Your task to perform on an android device: Search for vegetarian restaurants on Maps Image 0: 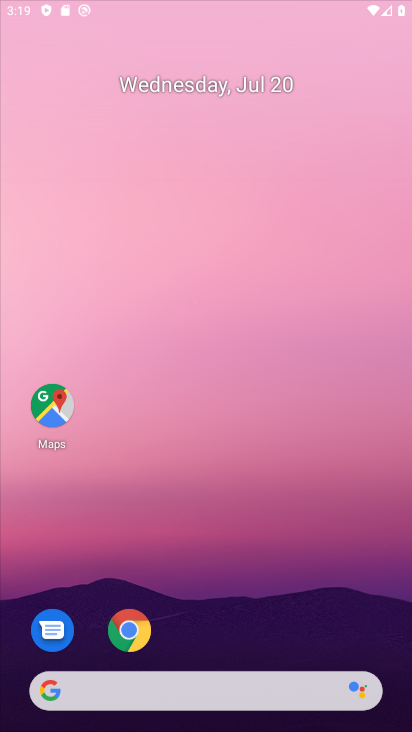
Step 0: press home button
Your task to perform on an android device: Search for vegetarian restaurants on Maps Image 1: 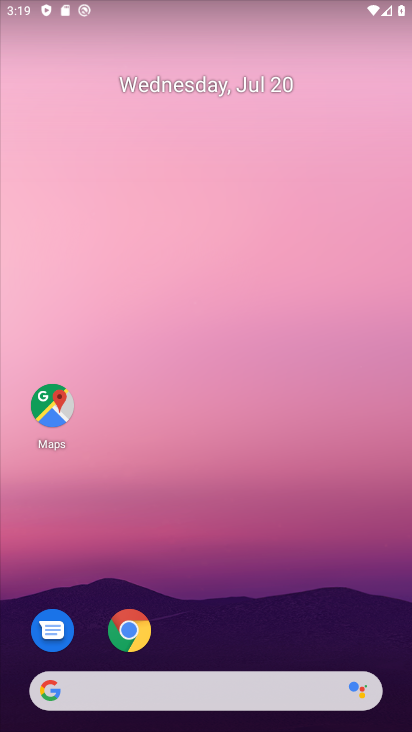
Step 1: drag from (251, 641) to (84, 2)
Your task to perform on an android device: Search for vegetarian restaurants on Maps Image 2: 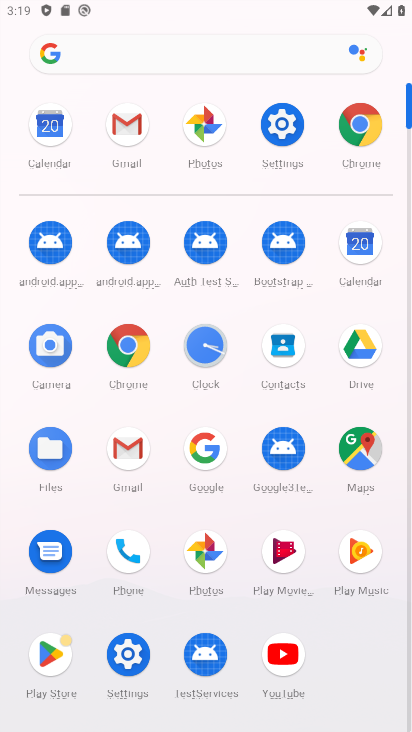
Step 2: click (370, 452)
Your task to perform on an android device: Search for vegetarian restaurants on Maps Image 3: 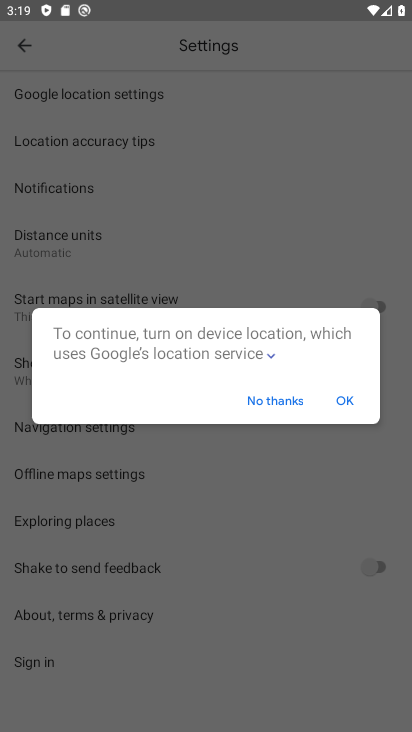
Step 3: click (27, 54)
Your task to perform on an android device: Search for vegetarian restaurants on Maps Image 4: 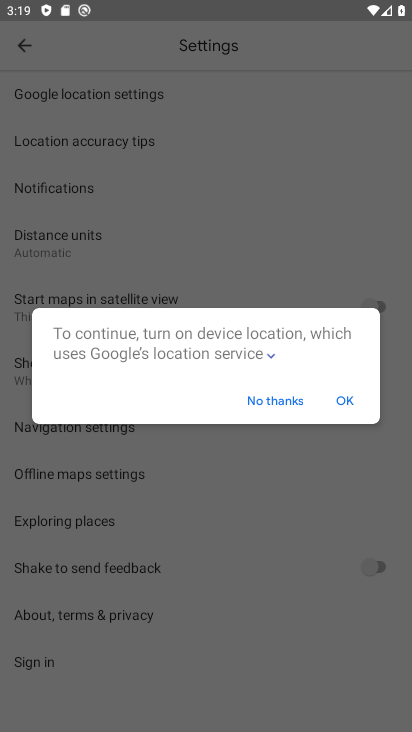
Step 4: click (349, 402)
Your task to perform on an android device: Search for vegetarian restaurants on Maps Image 5: 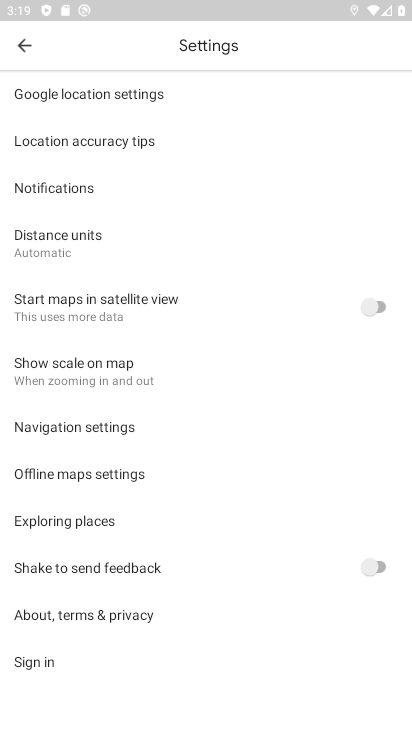
Step 5: click (23, 41)
Your task to perform on an android device: Search for vegetarian restaurants on Maps Image 6: 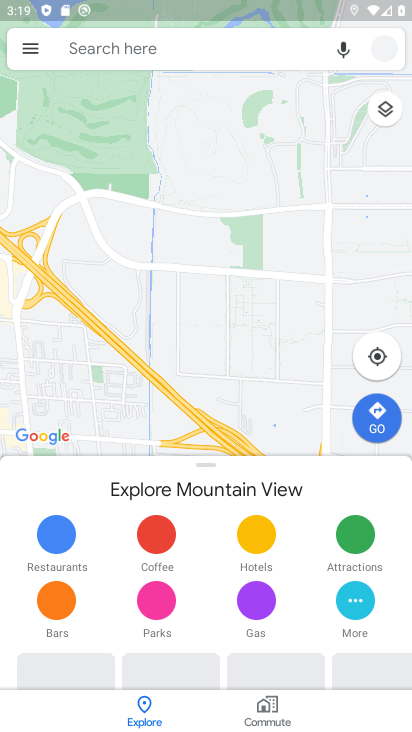
Step 6: click (19, 49)
Your task to perform on an android device: Search for vegetarian restaurants on Maps Image 7: 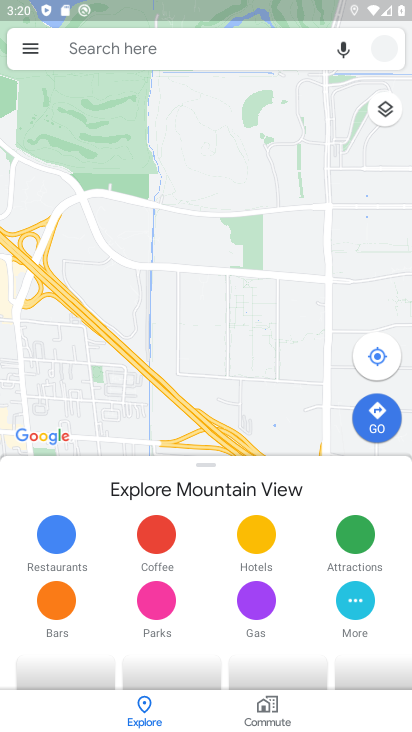
Step 7: click (160, 50)
Your task to perform on an android device: Search for vegetarian restaurants on Maps Image 8: 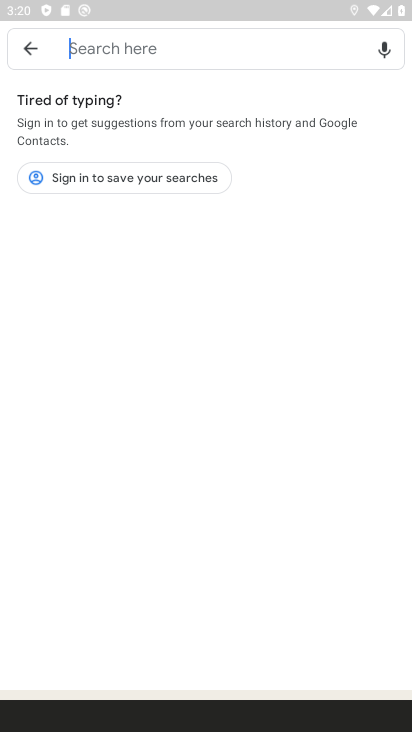
Step 8: click (136, 57)
Your task to perform on an android device: Search for vegetarian restaurants on Maps Image 9: 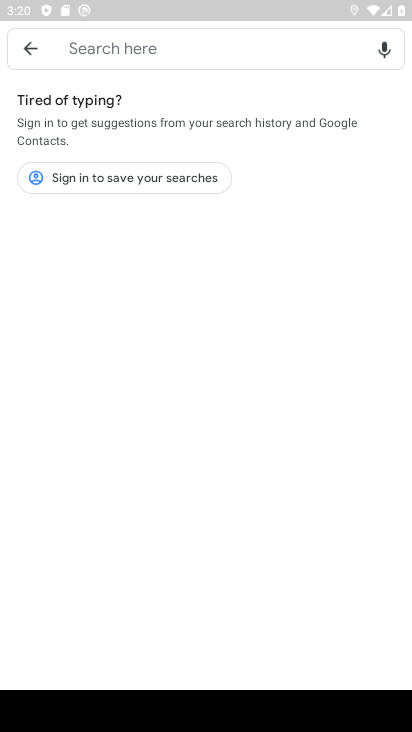
Step 9: click (27, 39)
Your task to perform on an android device: Search for vegetarian restaurants on Maps Image 10: 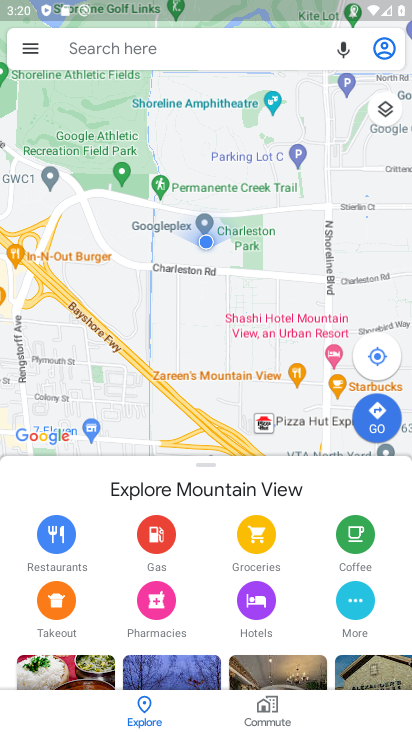
Step 10: click (127, 53)
Your task to perform on an android device: Search for vegetarian restaurants on Maps Image 11: 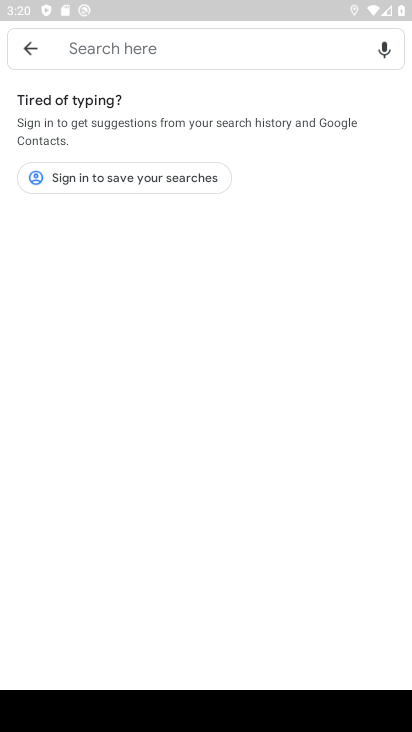
Step 11: click (162, 175)
Your task to perform on an android device: Search for vegetarian restaurants on Maps Image 12: 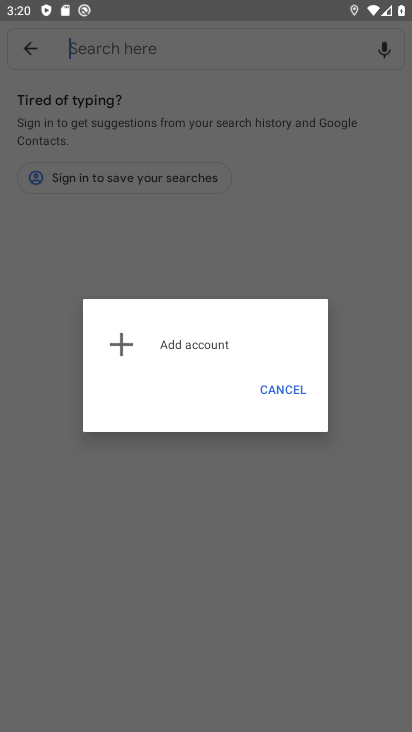
Step 12: click (208, 342)
Your task to perform on an android device: Search for vegetarian restaurants on Maps Image 13: 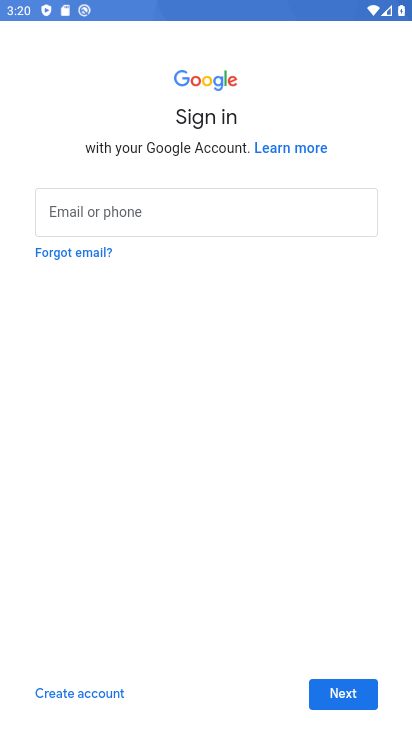
Step 13: task complete